Your task to perform on an android device: set the timer Image 0: 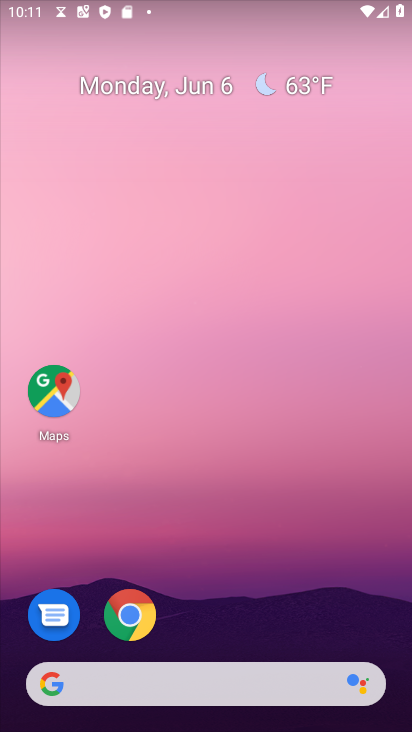
Step 0: press home button
Your task to perform on an android device: set the timer Image 1: 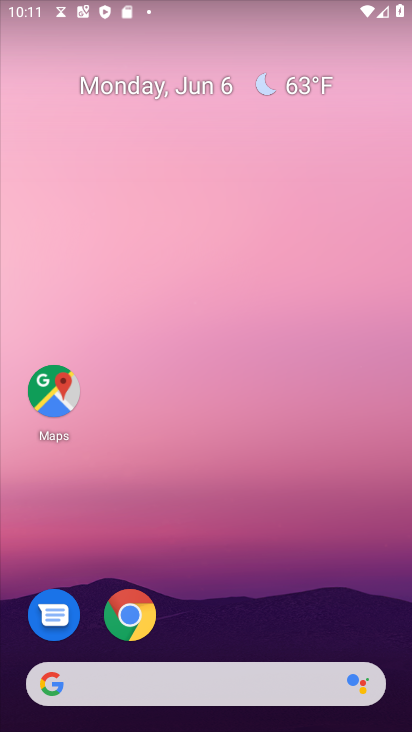
Step 1: drag from (220, 647) to (217, 64)
Your task to perform on an android device: set the timer Image 2: 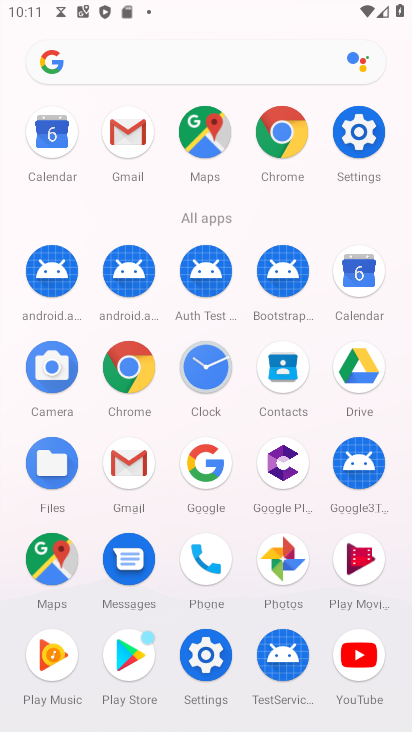
Step 2: click (205, 359)
Your task to perform on an android device: set the timer Image 3: 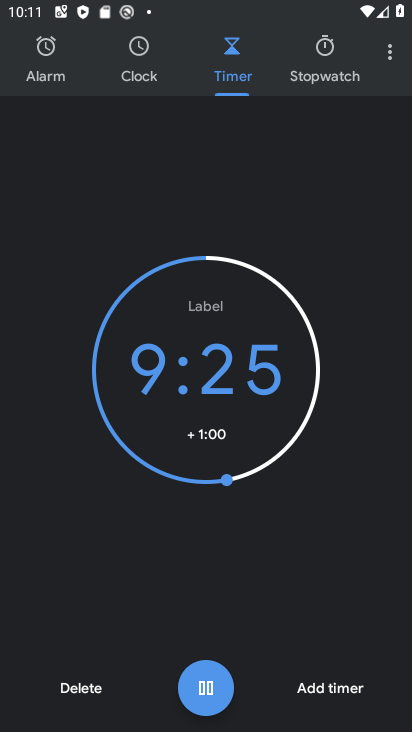
Step 3: task complete